Your task to perform on an android device: Open settings on Google Maps Image 0: 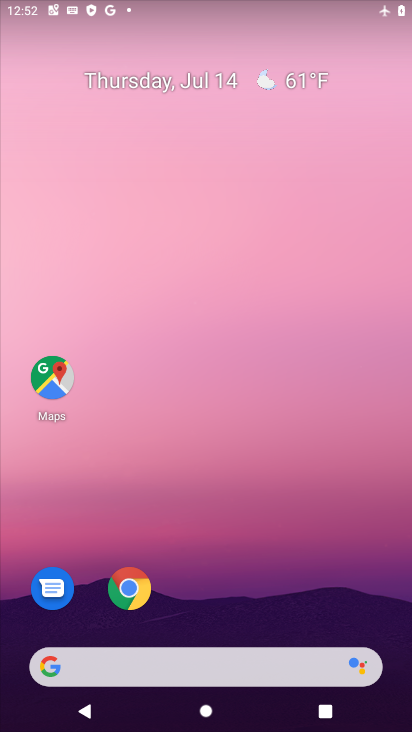
Step 0: drag from (195, 609) to (182, 14)
Your task to perform on an android device: Open settings on Google Maps Image 1: 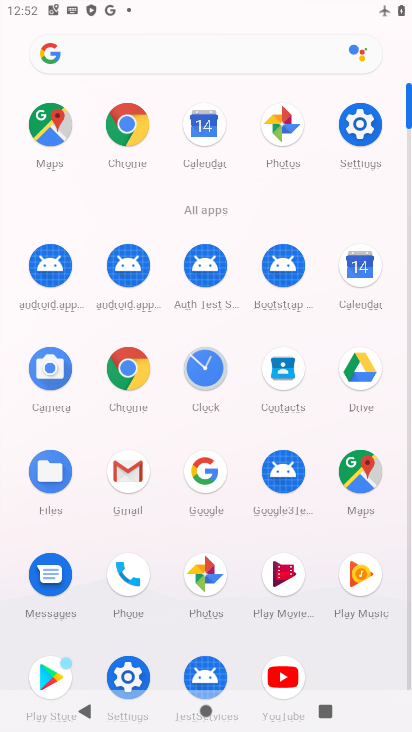
Step 1: click (371, 481)
Your task to perform on an android device: Open settings on Google Maps Image 2: 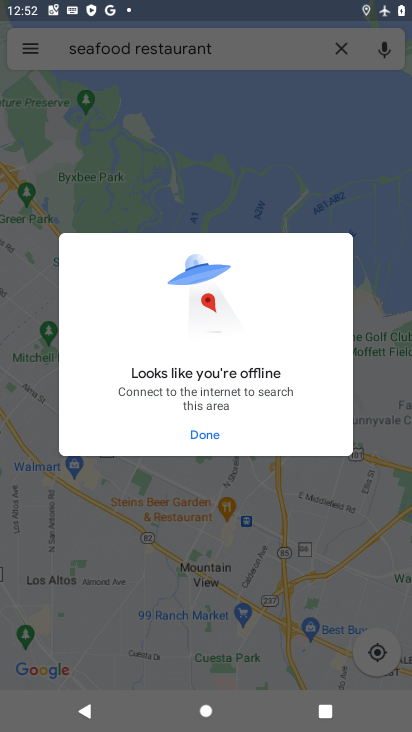
Step 2: click (197, 434)
Your task to perform on an android device: Open settings on Google Maps Image 3: 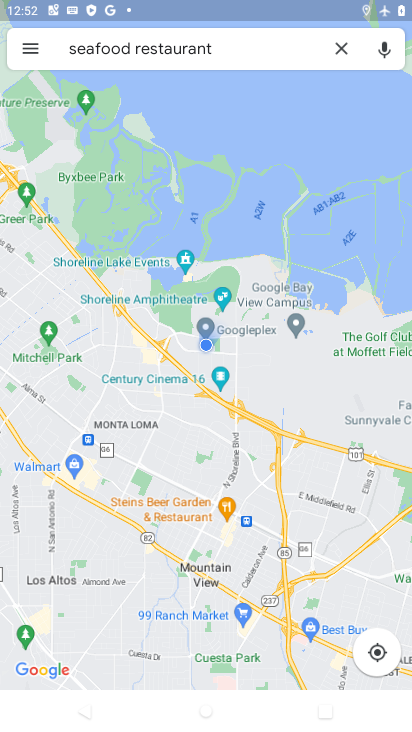
Step 3: click (27, 48)
Your task to perform on an android device: Open settings on Google Maps Image 4: 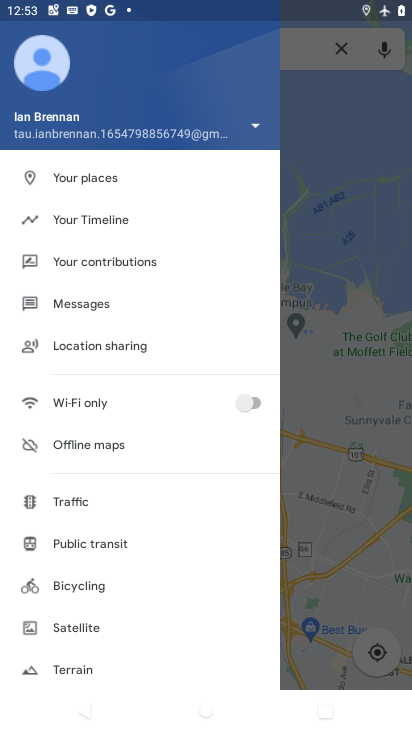
Step 4: drag from (85, 648) to (72, 387)
Your task to perform on an android device: Open settings on Google Maps Image 5: 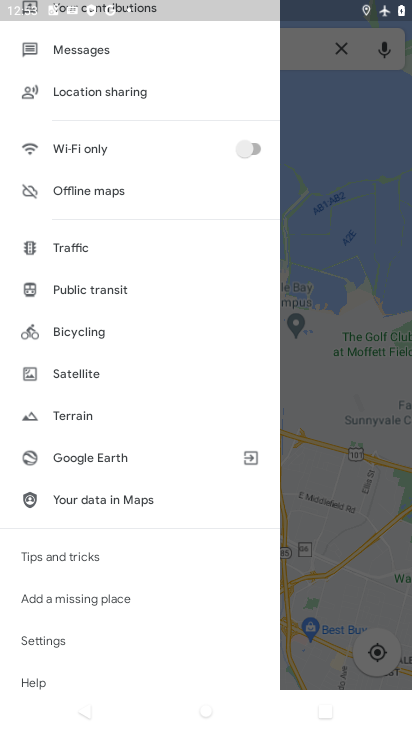
Step 5: click (44, 644)
Your task to perform on an android device: Open settings on Google Maps Image 6: 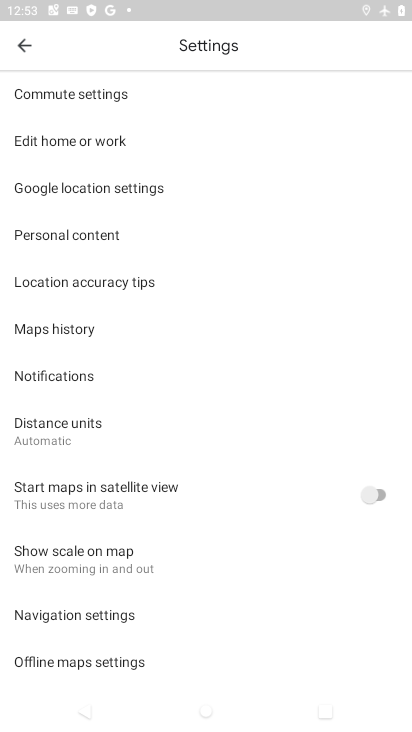
Step 6: task complete